Your task to perform on an android device: allow cookies in the chrome app Image 0: 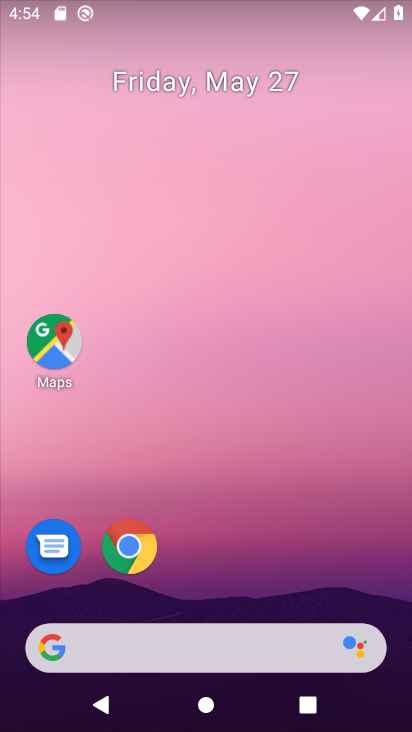
Step 0: drag from (265, 511) to (195, 54)
Your task to perform on an android device: allow cookies in the chrome app Image 1: 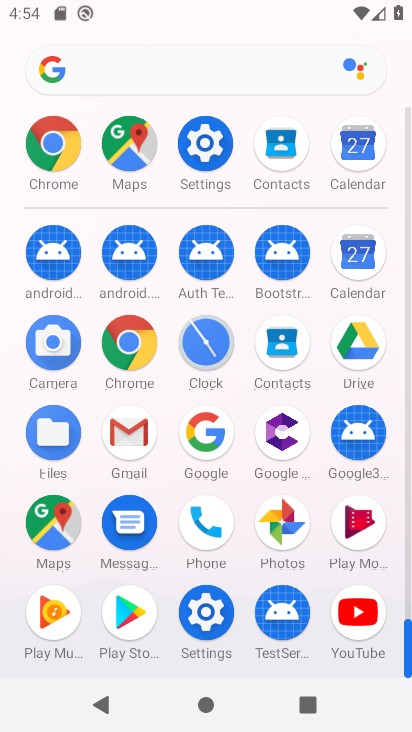
Step 1: drag from (1, 454) to (16, 220)
Your task to perform on an android device: allow cookies in the chrome app Image 2: 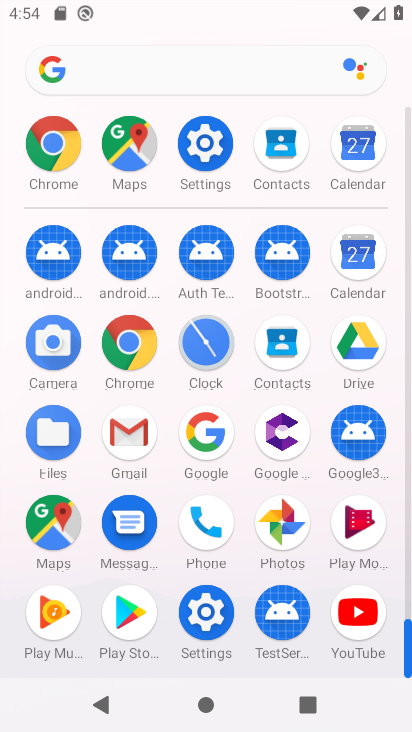
Step 2: click (127, 339)
Your task to perform on an android device: allow cookies in the chrome app Image 3: 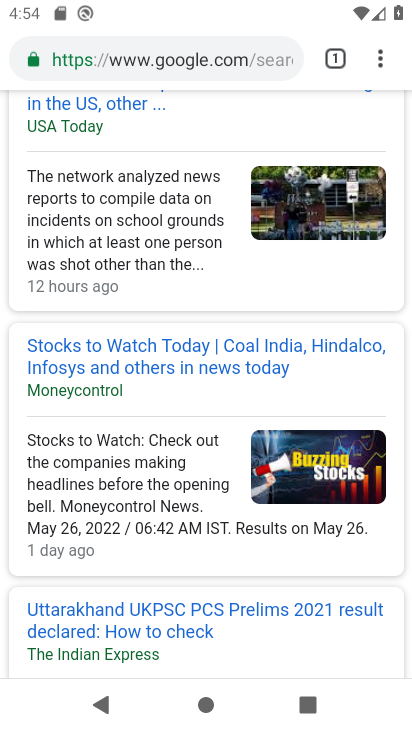
Step 3: drag from (375, 52) to (171, 563)
Your task to perform on an android device: allow cookies in the chrome app Image 4: 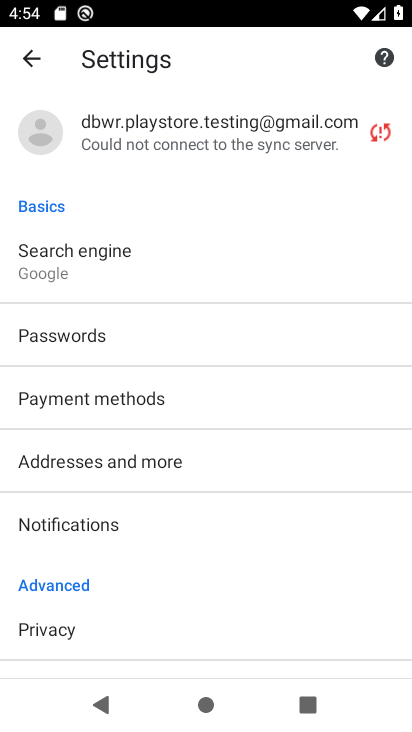
Step 4: drag from (205, 565) to (223, 228)
Your task to perform on an android device: allow cookies in the chrome app Image 5: 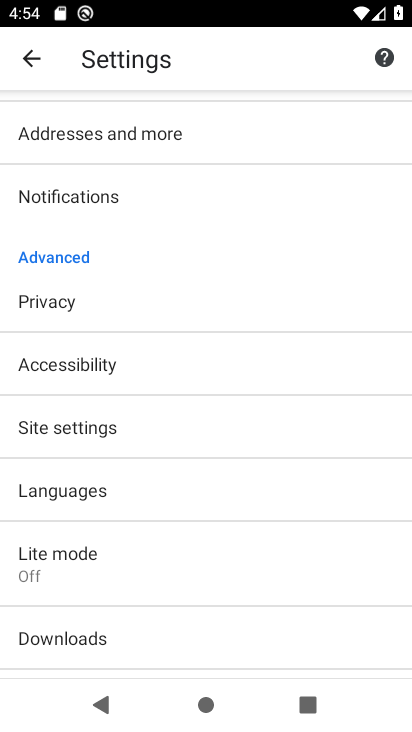
Step 5: drag from (112, 550) to (195, 239)
Your task to perform on an android device: allow cookies in the chrome app Image 6: 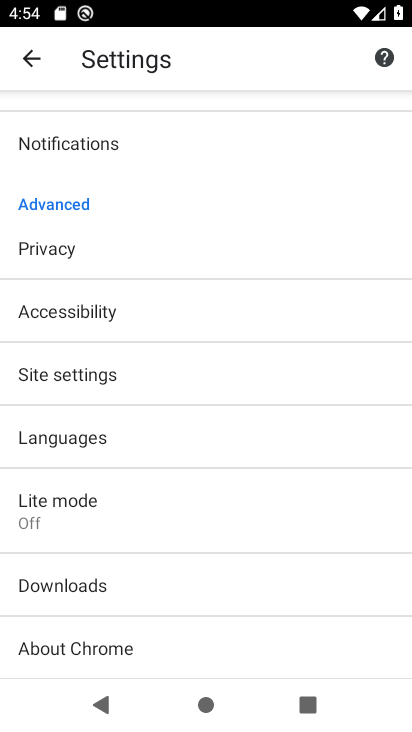
Step 6: click (85, 365)
Your task to perform on an android device: allow cookies in the chrome app Image 7: 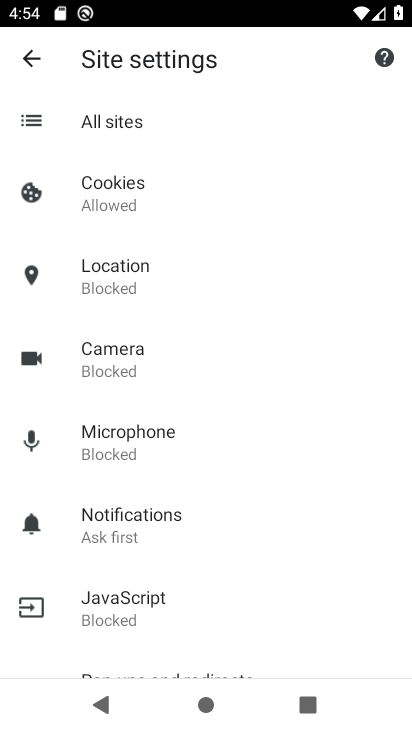
Step 7: click (116, 185)
Your task to perform on an android device: allow cookies in the chrome app Image 8: 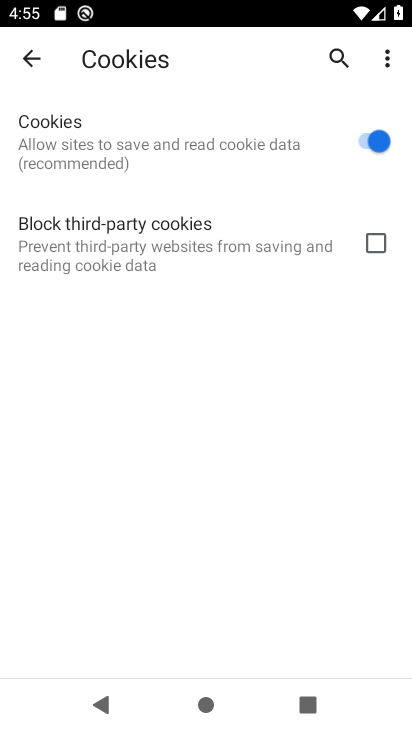
Step 8: task complete